Your task to perform on an android device: Is it going to rain tomorrow? Image 0: 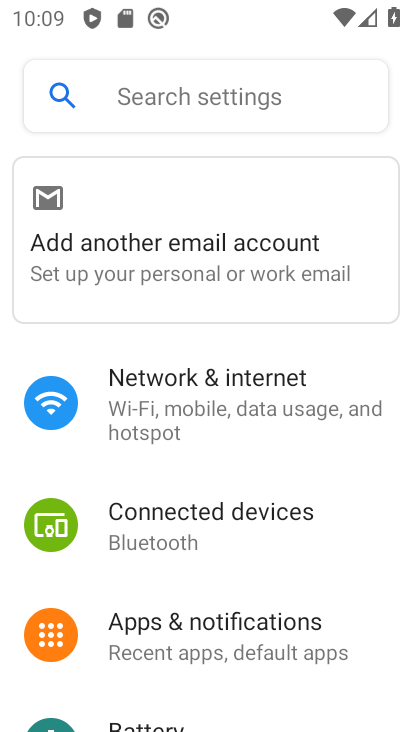
Step 0: press back button
Your task to perform on an android device: Is it going to rain tomorrow? Image 1: 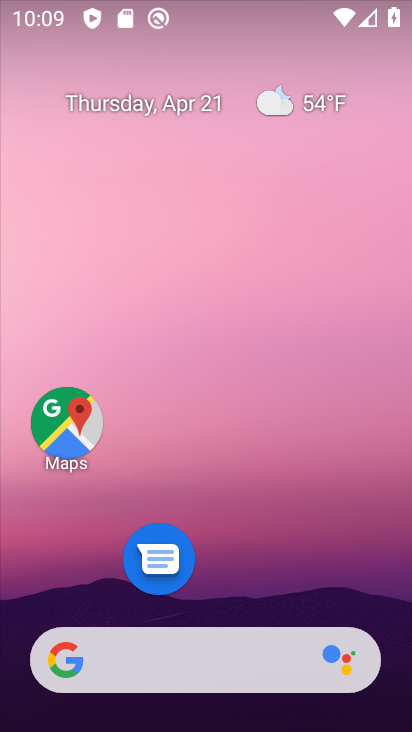
Step 1: click (281, 85)
Your task to perform on an android device: Is it going to rain tomorrow? Image 2: 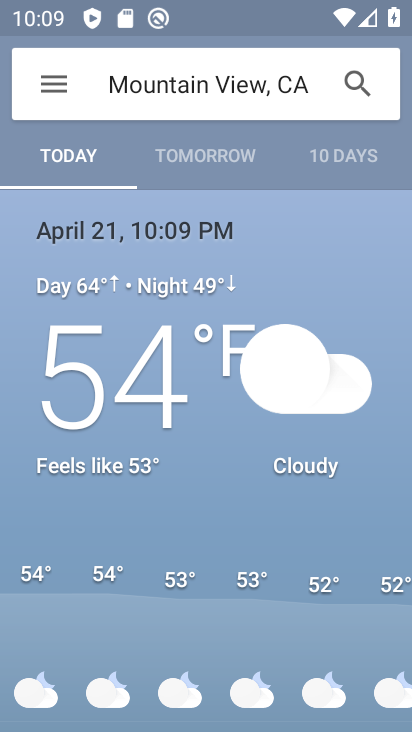
Step 2: click (184, 151)
Your task to perform on an android device: Is it going to rain tomorrow? Image 3: 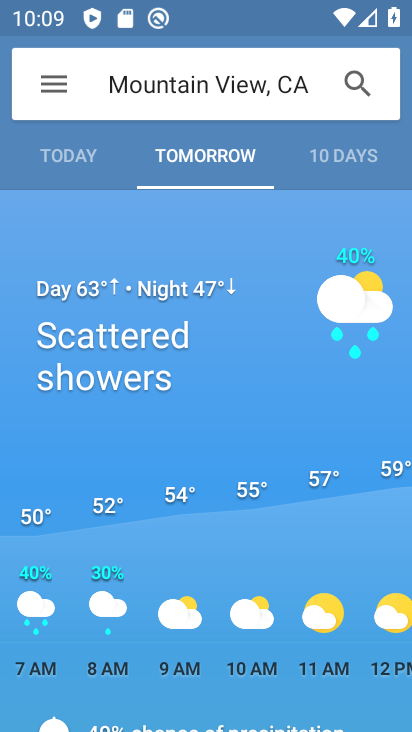
Step 3: task complete